Your task to perform on an android device: set default search engine in the chrome app Image 0: 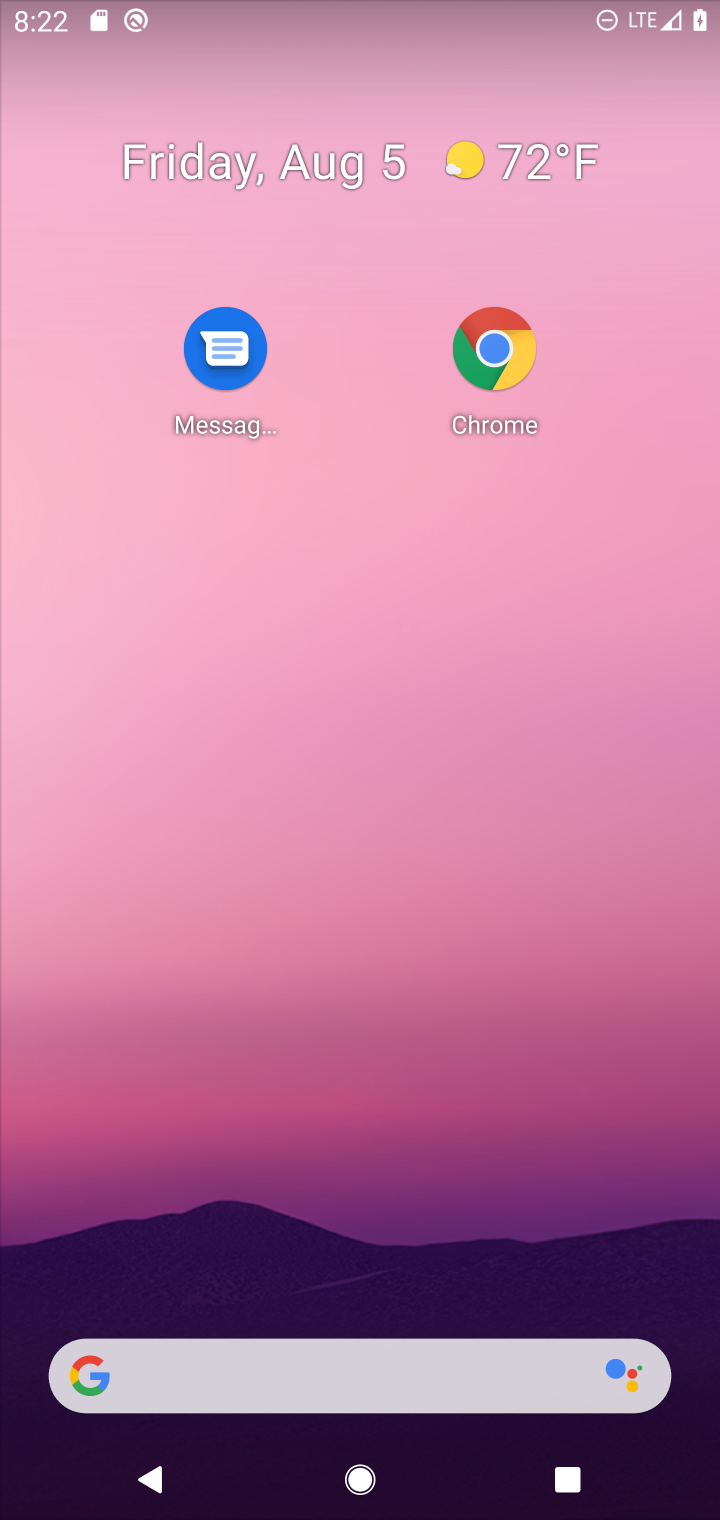
Step 0: press home button
Your task to perform on an android device: set default search engine in the chrome app Image 1: 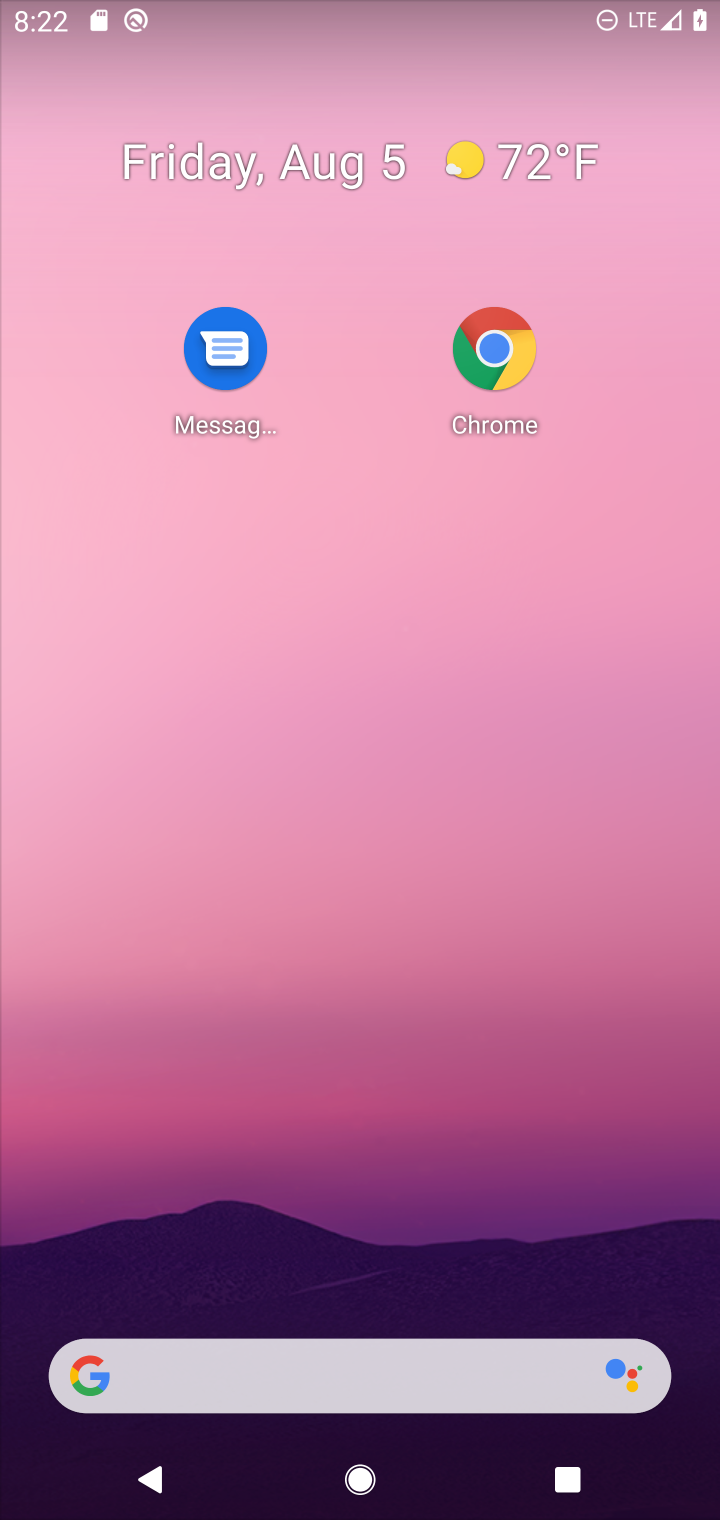
Step 1: drag from (389, 1211) to (303, 412)
Your task to perform on an android device: set default search engine in the chrome app Image 2: 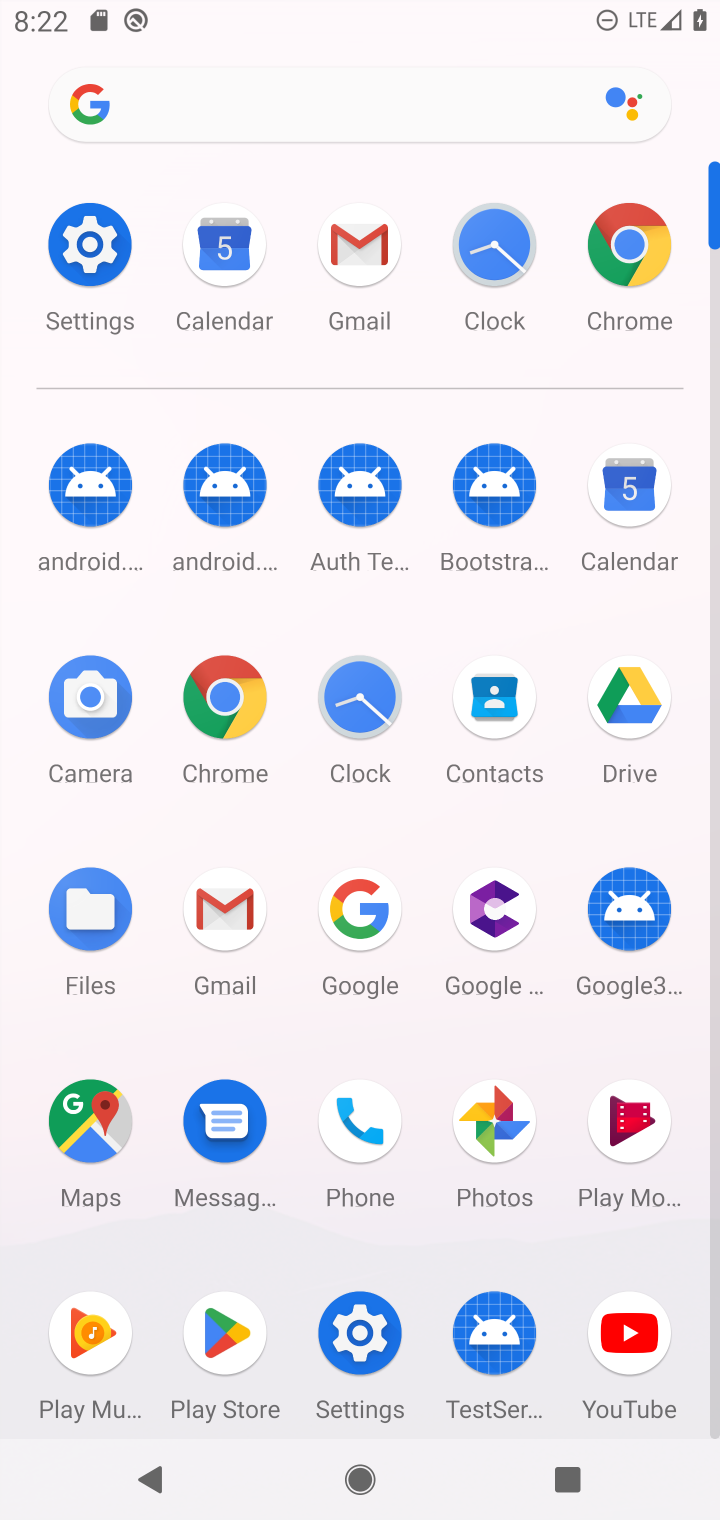
Step 2: click (601, 251)
Your task to perform on an android device: set default search engine in the chrome app Image 3: 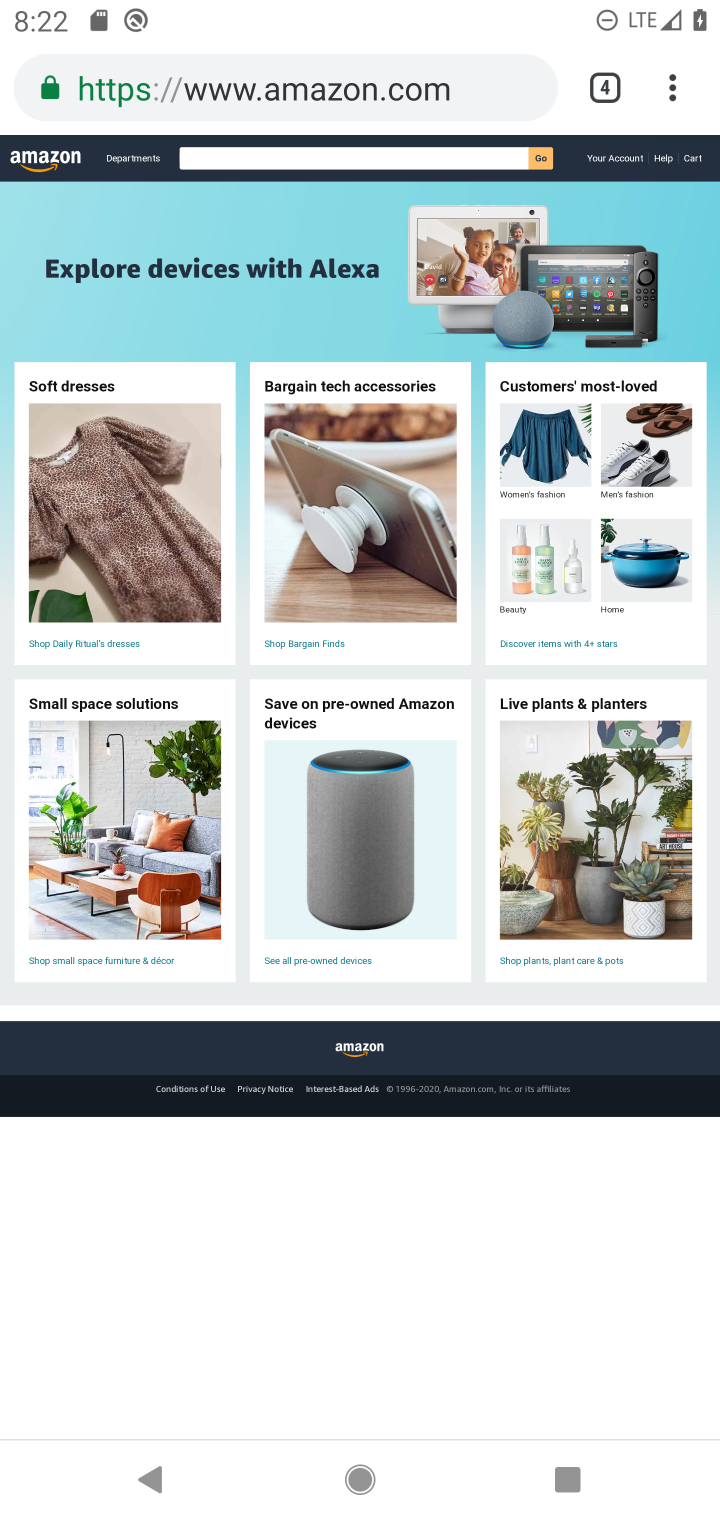
Step 3: click (670, 105)
Your task to perform on an android device: set default search engine in the chrome app Image 4: 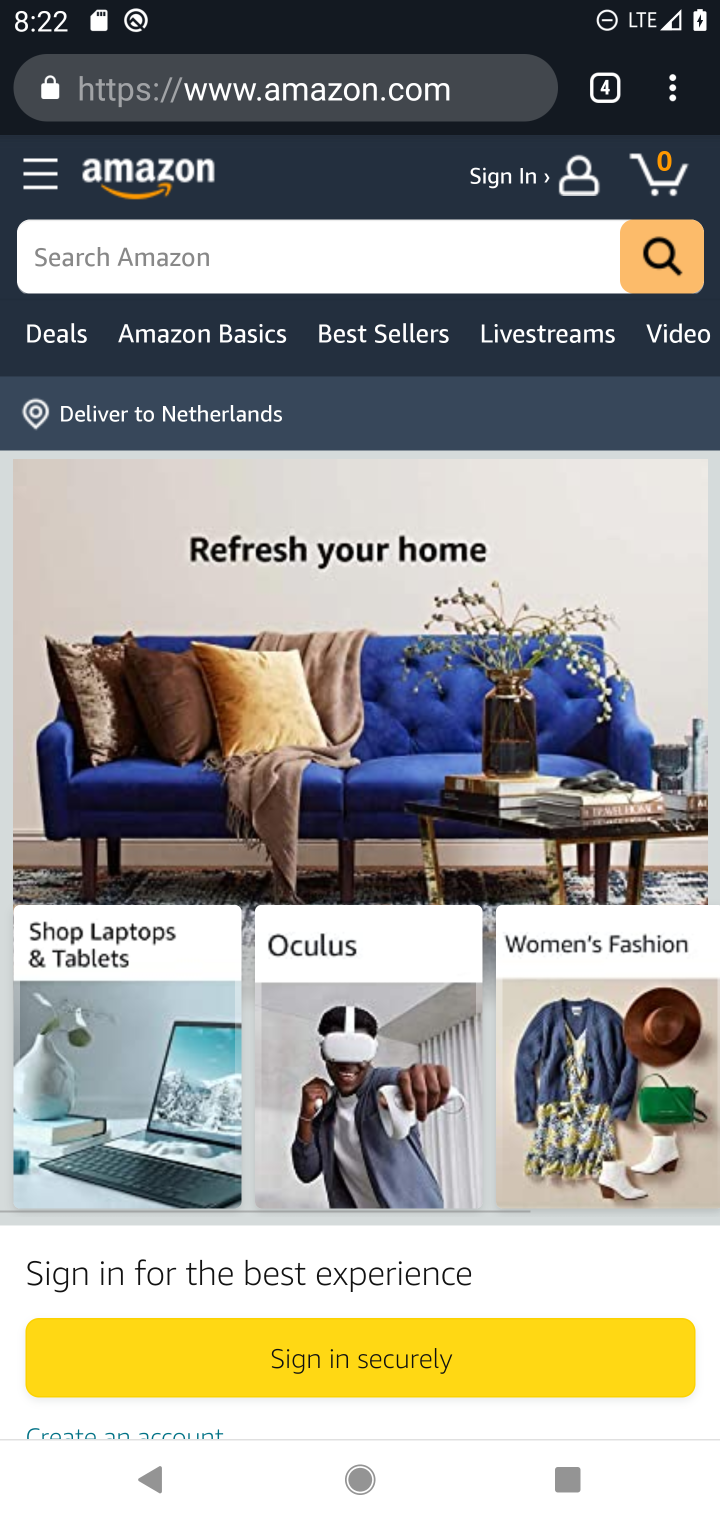
Step 4: click (669, 93)
Your task to perform on an android device: set default search engine in the chrome app Image 5: 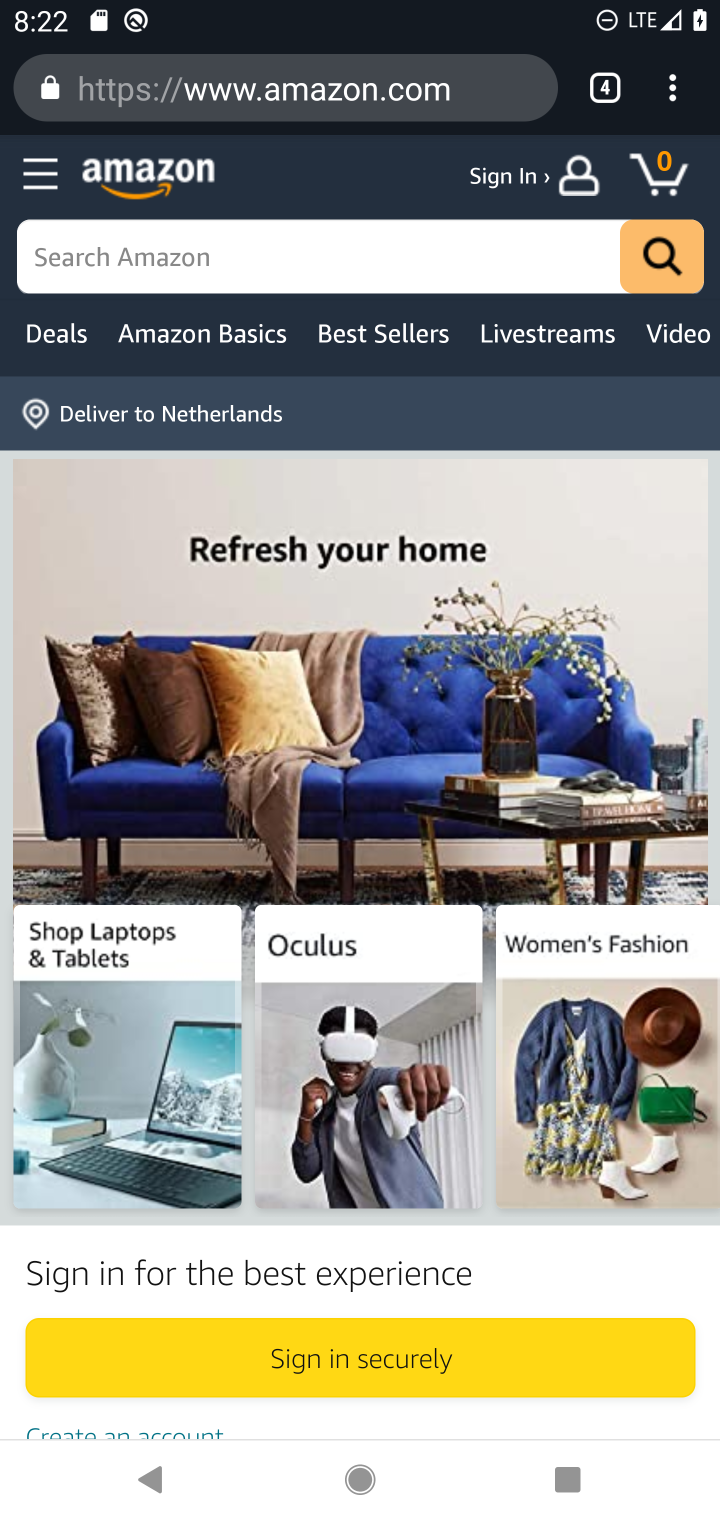
Step 5: click (673, 105)
Your task to perform on an android device: set default search engine in the chrome app Image 6: 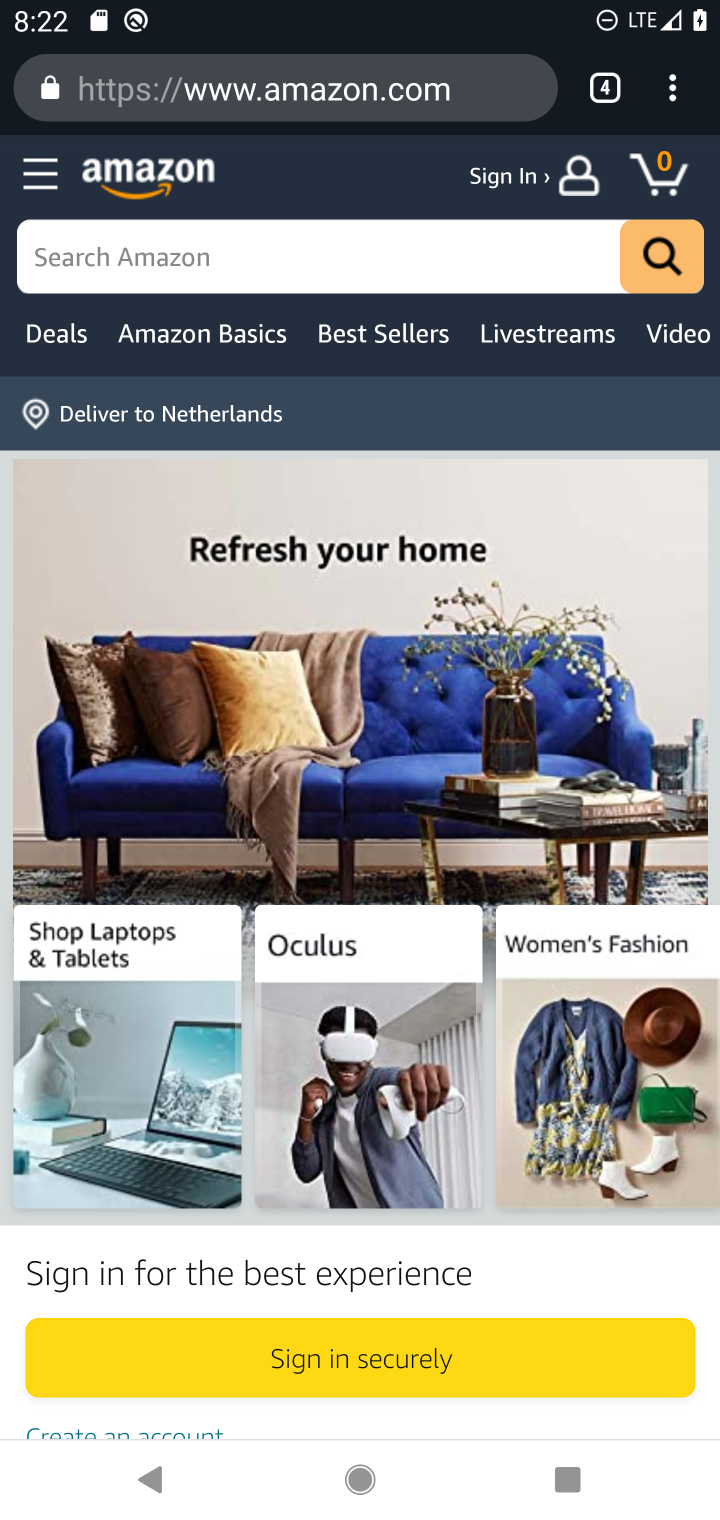
Step 6: click (670, 110)
Your task to perform on an android device: set default search engine in the chrome app Image 7: 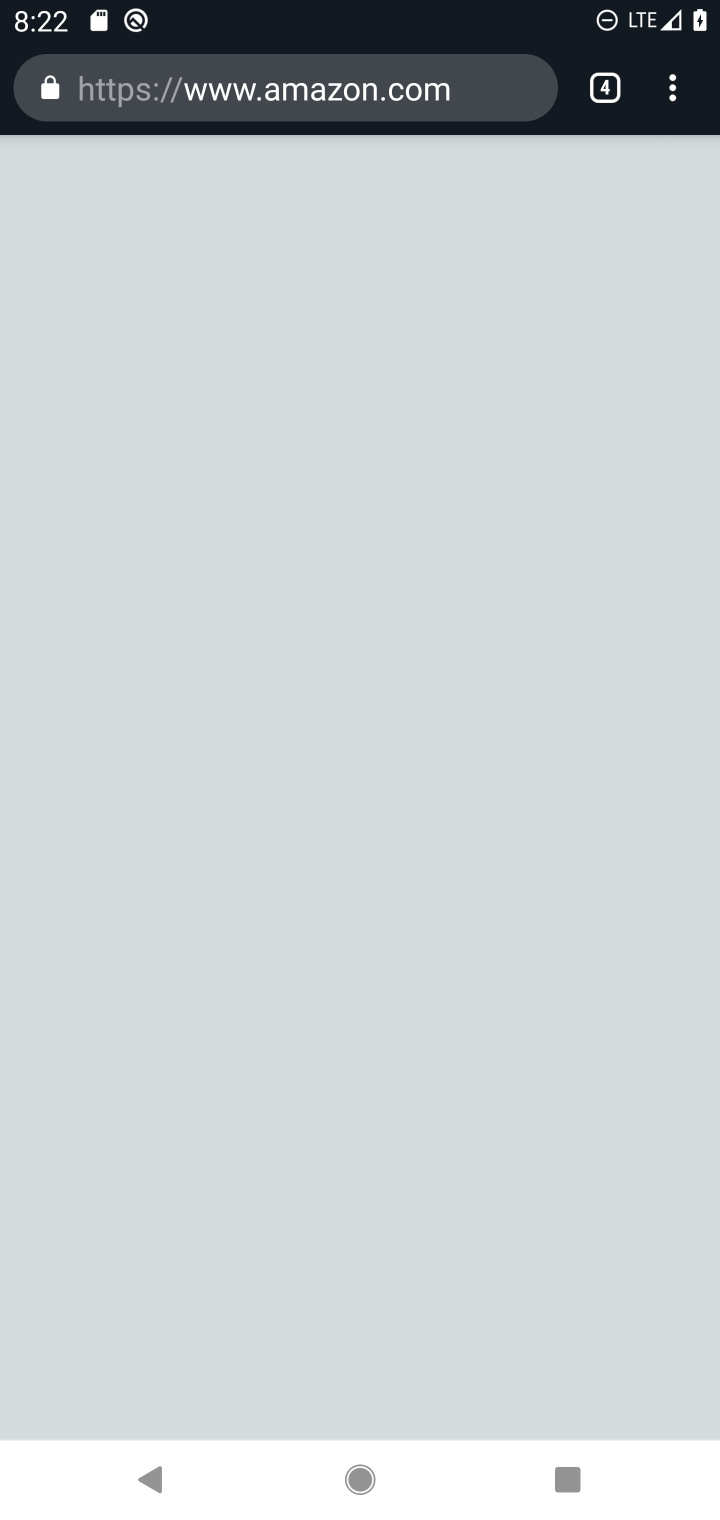
Step 7: click (670, 110)
Your task to perform on an android device: set default search engine in the chrome app Image 8: 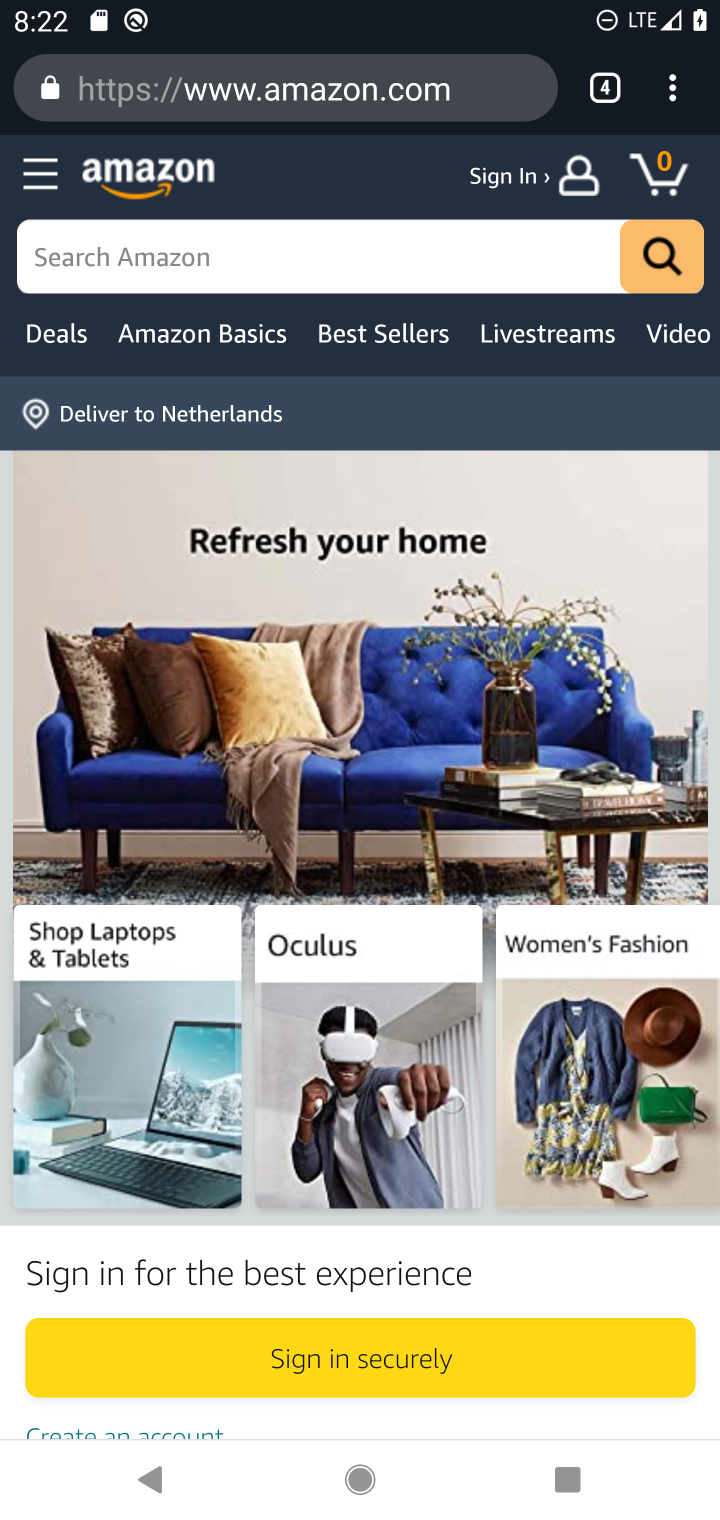
Step 8: click (658, 119)
Your task to perform on an android device: set default search engine in the chrome app Image 9: 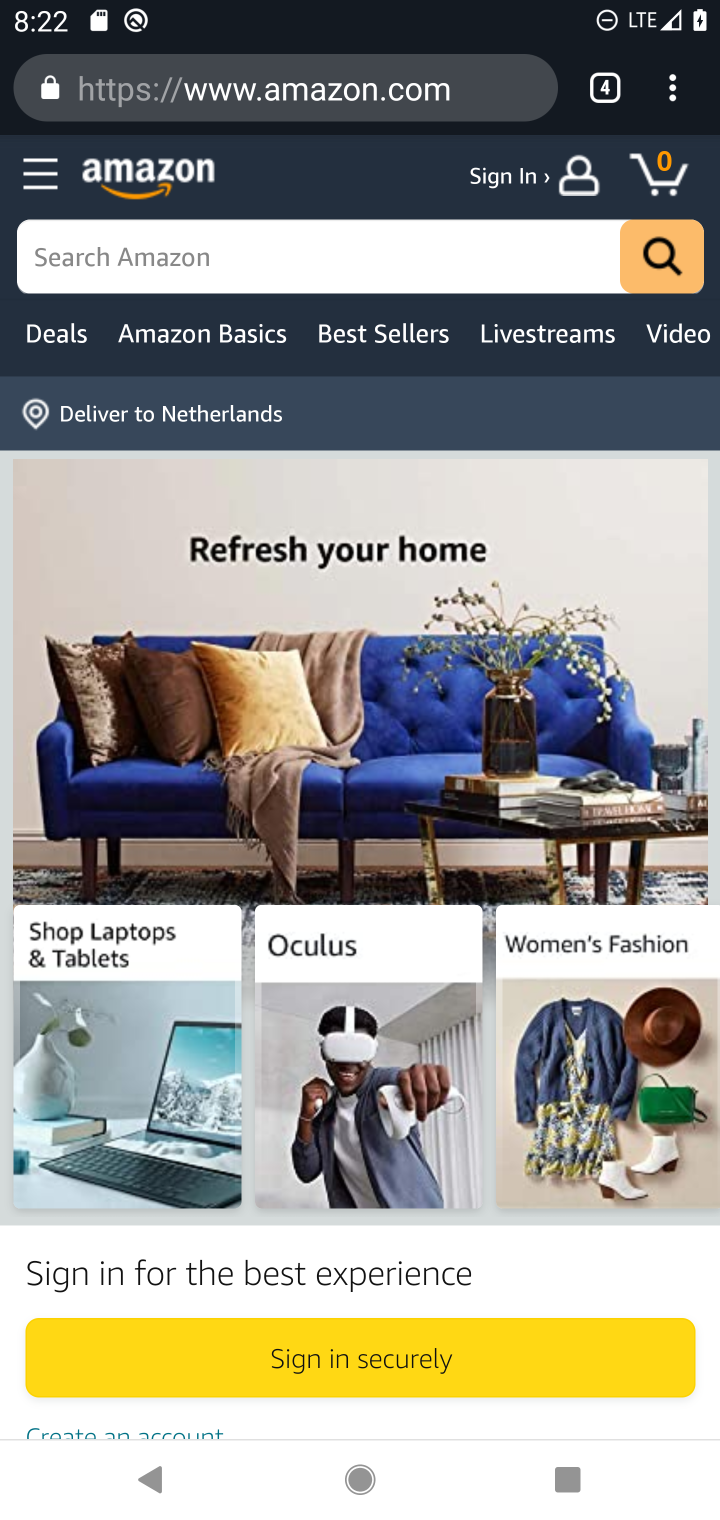
Step 9: click (645, 116)
Your task to perform on an android device: set default search engine in the chrome app Image 10: 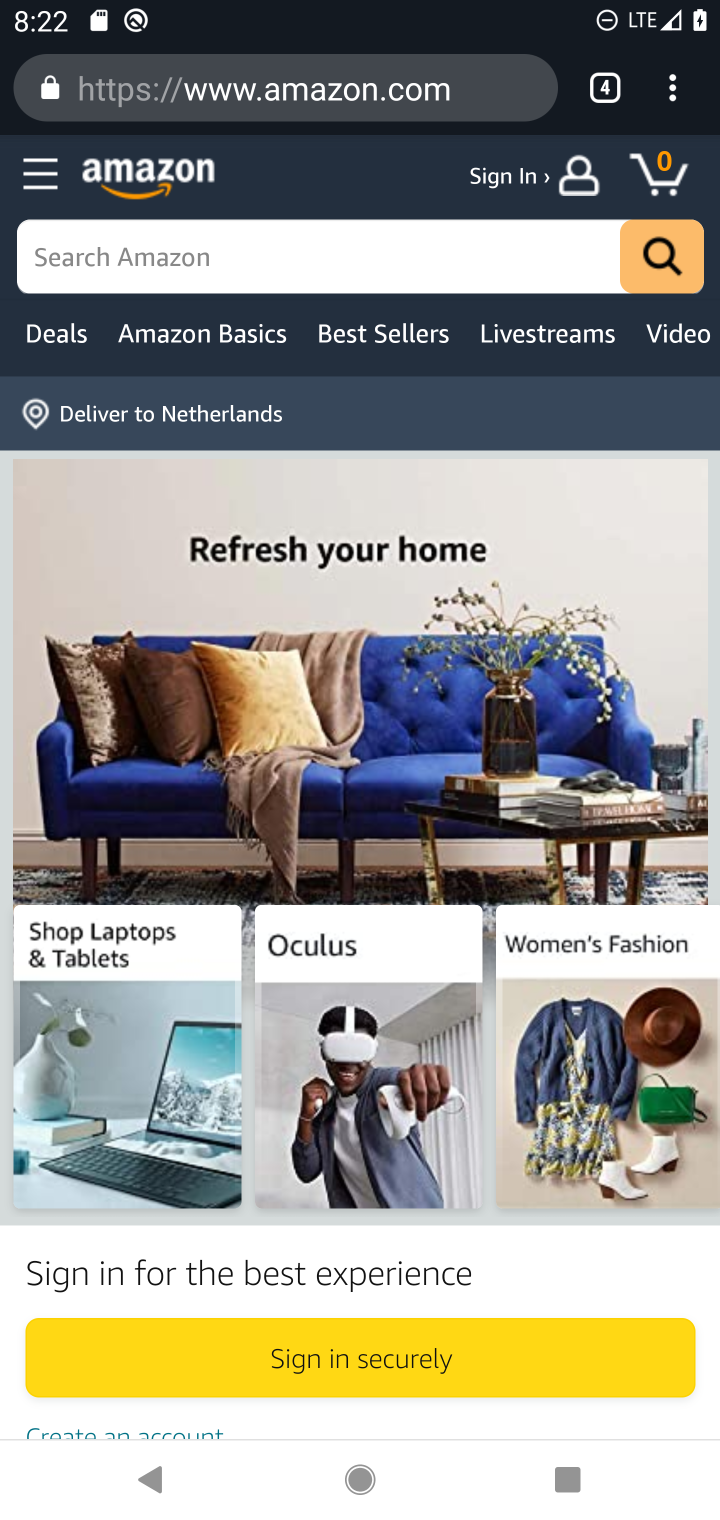
Step 10: click (676, 130)
Your task to perform on an android device: set default search engine in the chrome app Image 11: 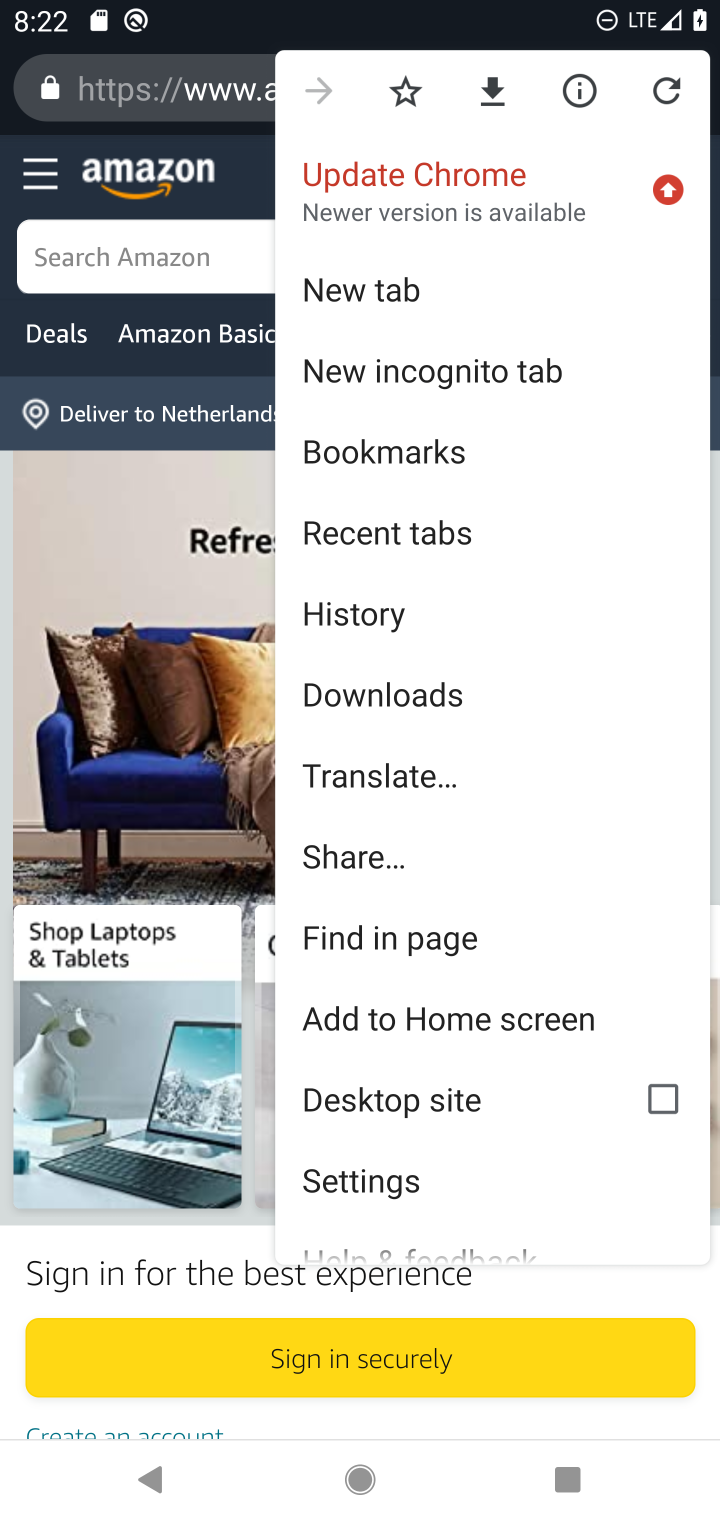
Step 11: click (410, 1165)
Your task to perform on an android device: set default search engine in the chrome app Image 12: 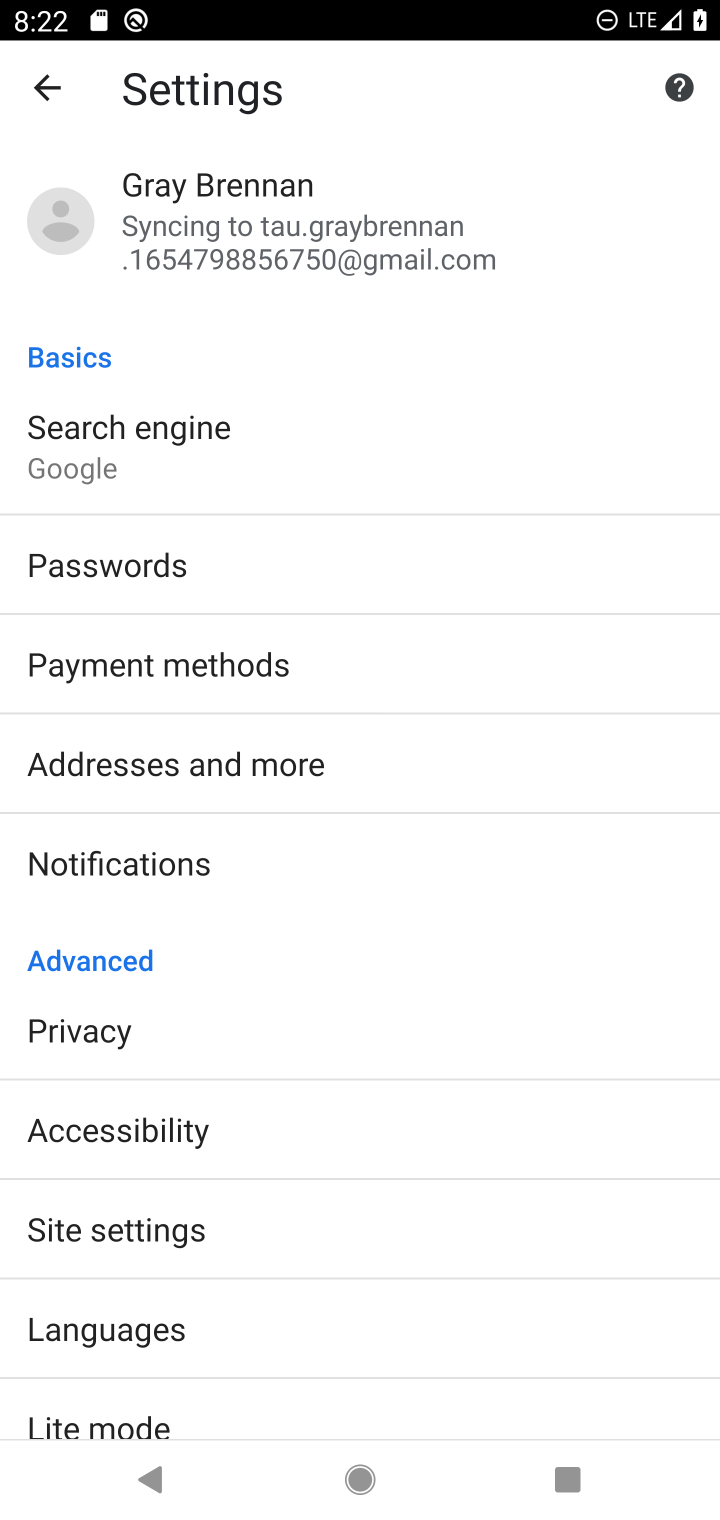
Step 12: click (108, 411)
Your task to perform on an android device: set default search engine in the chrome app Image 13: 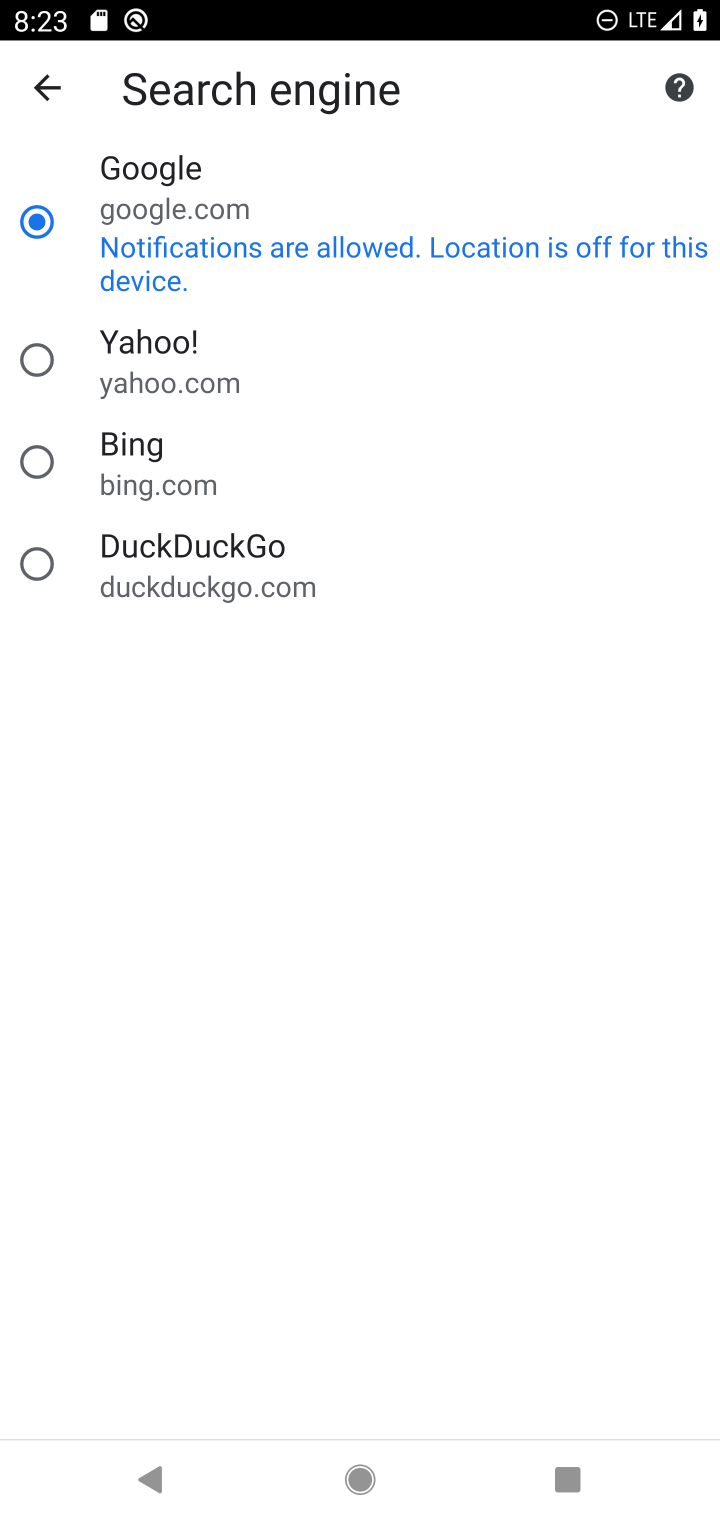
Step 13: task complete